Your task to perform on an android device: clear all cookies in the chrome app Image 0: 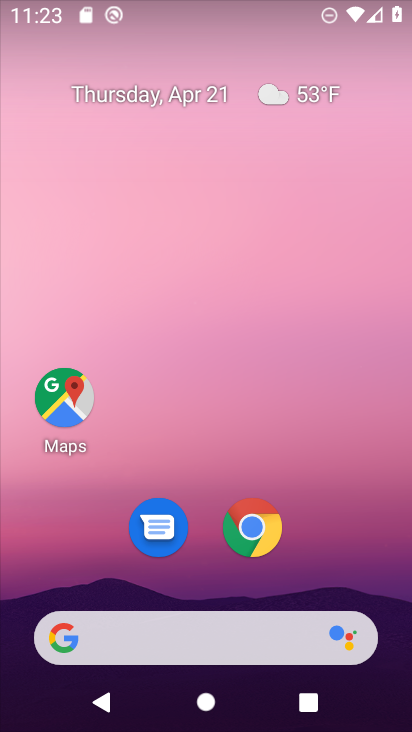
Step 0: drag from (373, 561) to (348, 141)
Your task to perform on an android device: clear all cookies in the chrome app Image 1: 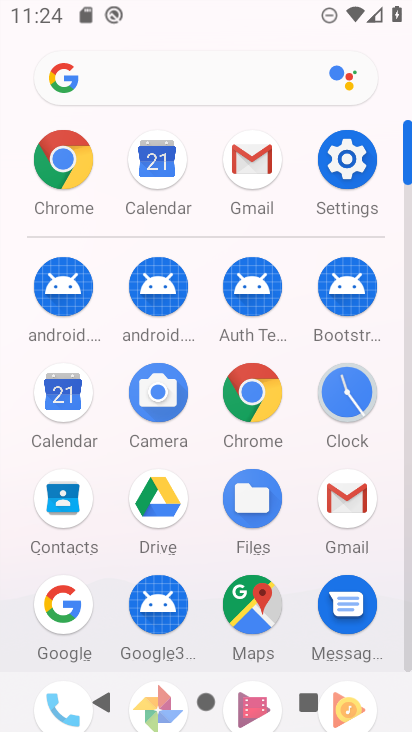
Step 1: click (253, 389)
Your task to perform on an android device: clear all cookies in the chrome app Image 2: 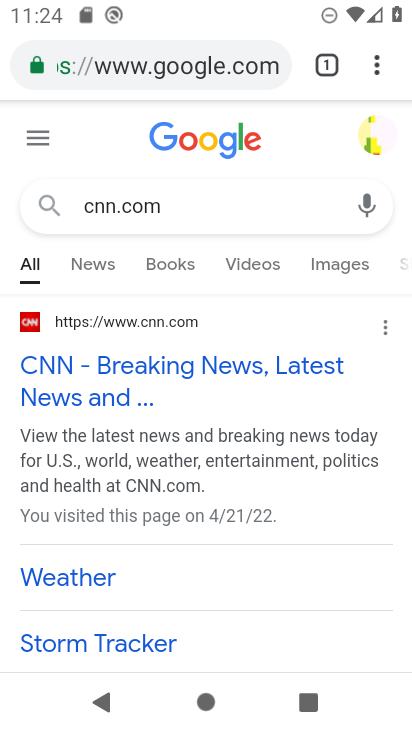
Step 2: click (376, 60)
Your task to perform on an android device: clear all cookies in the chrome app Image 3: 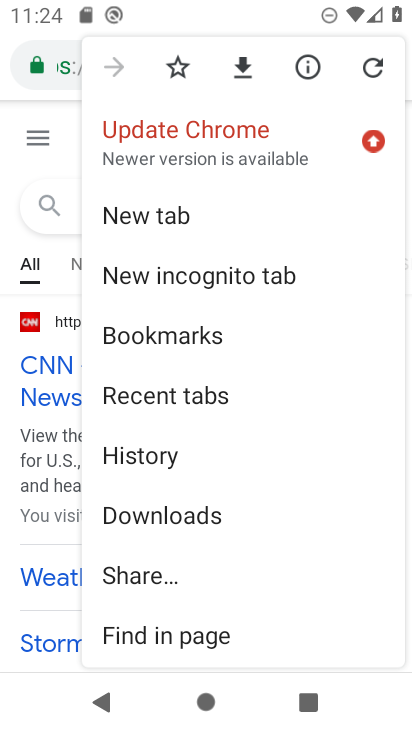
Step 3: drag from (281, 578) to (282, 415)
Your task to perform on an android device: clear all cookies in the chrome app Image 4: 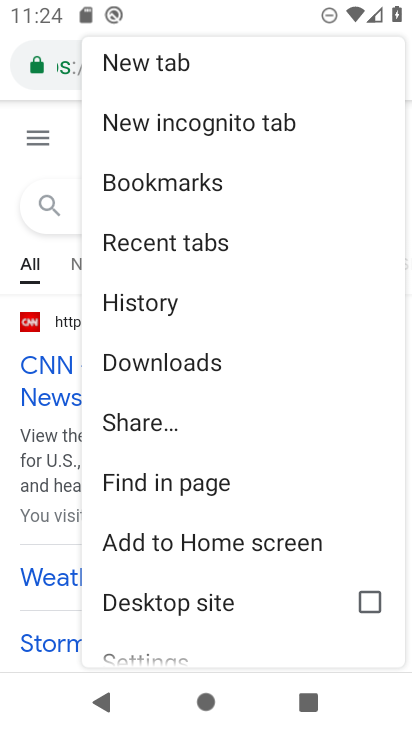
Step 4: drag from (306, 602) to (315, 410)
Your task to perform on an android device: clear all cookies in the chrome app Image 5: 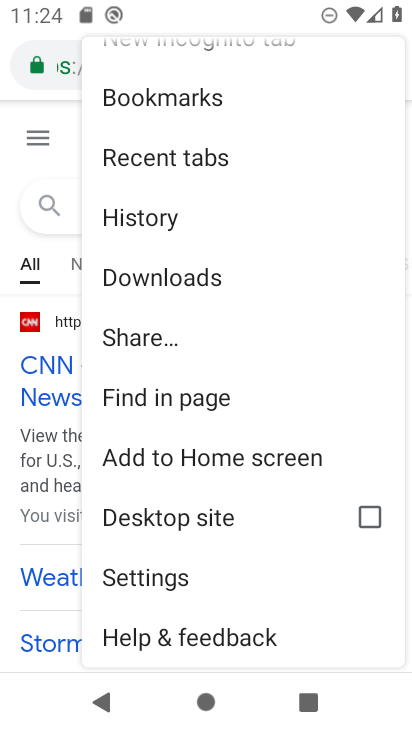
Step 5: click (166, 579)
Your task to perform on an android device: clear all cookies in the chrome app Image 6: 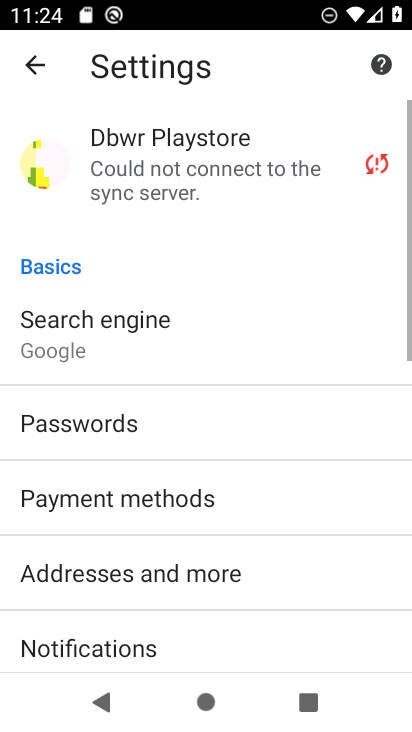
Step 6: drag from (283, 604) to (299, 481)
Your task to perform on an android device: clear all cookies in the chrome app Image 7: 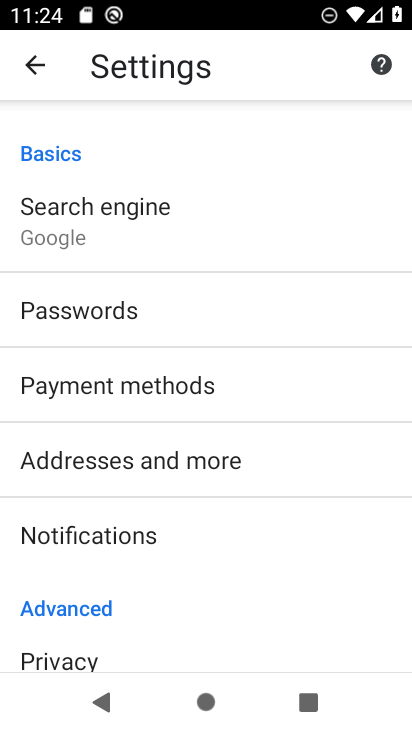
Step 7: drag from (303, 596) to (304, 474)
Your task to perform on an android device: clear all cookies in the chrome app Image 8: 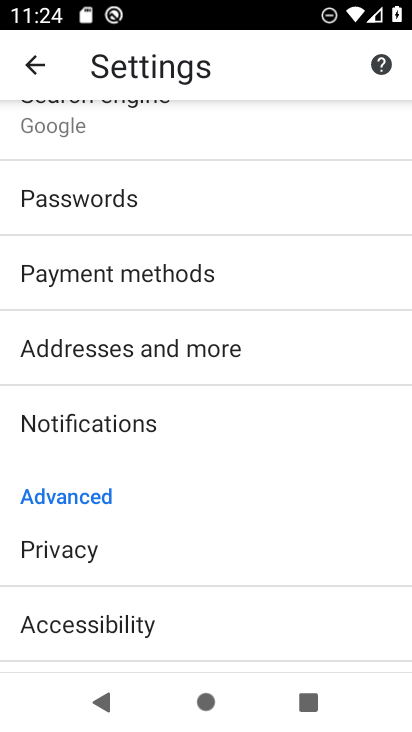
Step 8: drag from (301, 604) to (303, 487)
Your task to perform on an android device: clear all cookies in the chrome app Image 9: 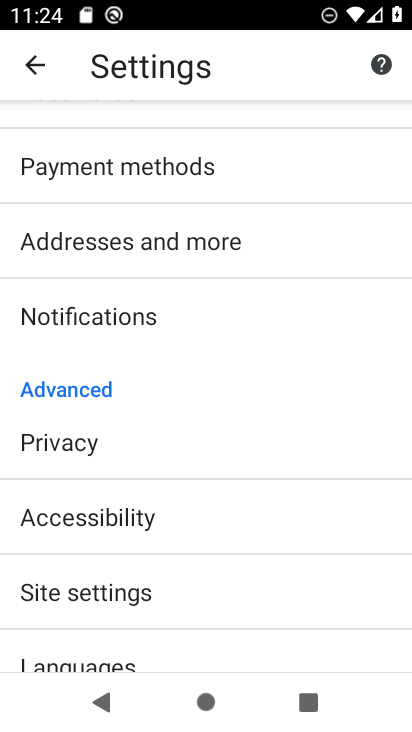
Step 9: drag from (293, 587) to (294, 487)
Your task to perform on an android device: clear all cookies in the chrome app Image 10: 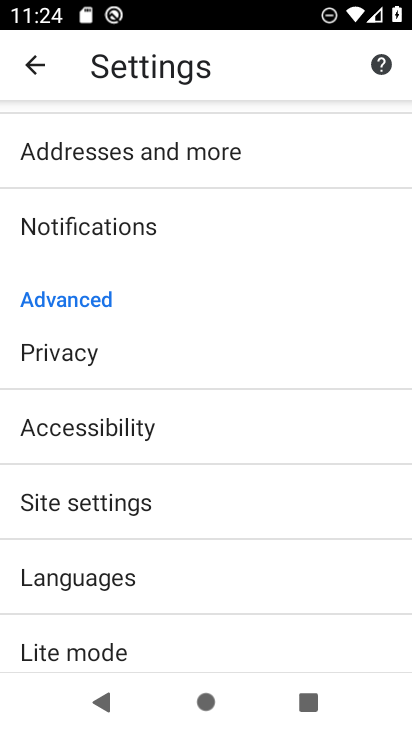
Step 10: drag from (286, 579) to (297, 468)
Your task to perform on an android device: clear all cookies in the chrome app Image 11: 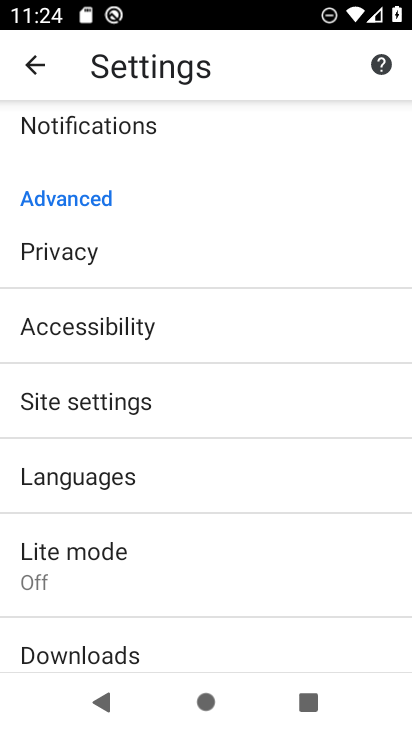
Step 11: drag from (296, 639) to (297, 466)
Your task to perform on an android device: clear all cookies in the chrome app Image 12: 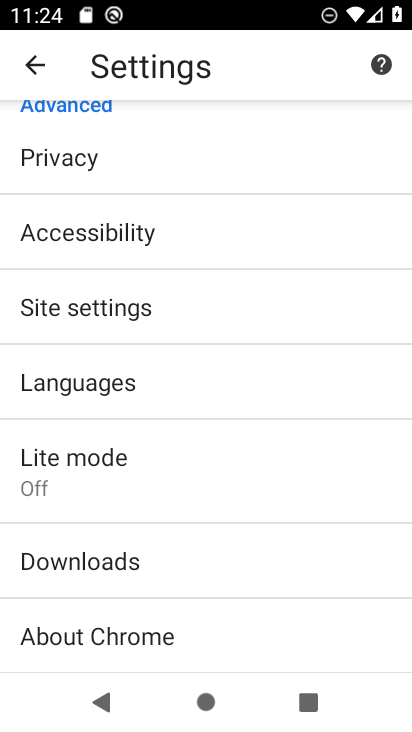
Step 12: drag from (280, 609) to (282, 455)
Your task to perform on an android device: clear all cookies in the chrome app Image 13: 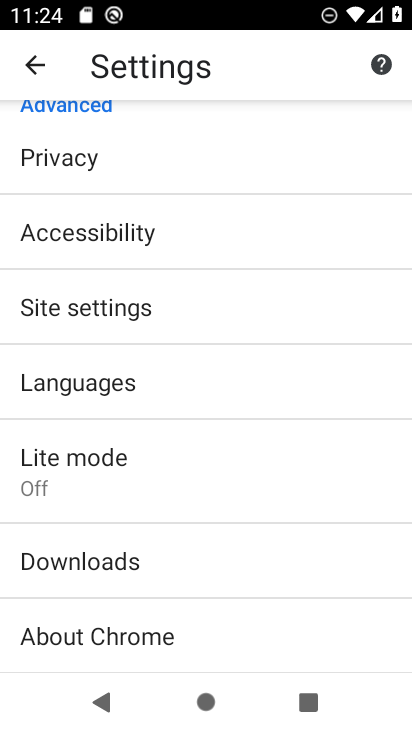
Step 13: drag from (294, 289) to (292, 458)
Your task to perform on an android device: clear all cookies in the chrome app Image 14: 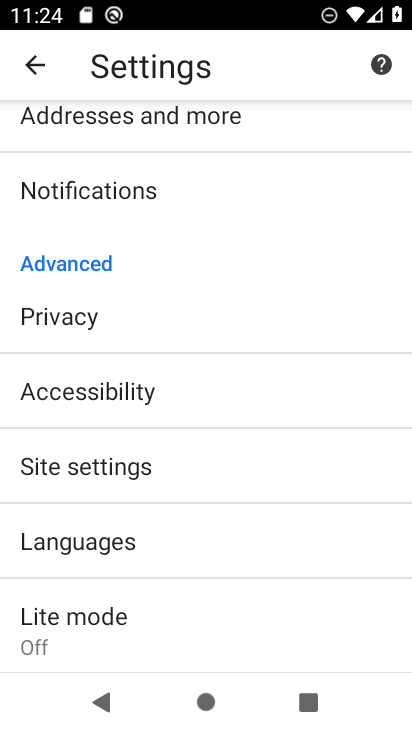
Step 14: drag from (277, 321) to (256, 523)
Your task to perform on an android device: clear all cookies in the chrome app Image 15: 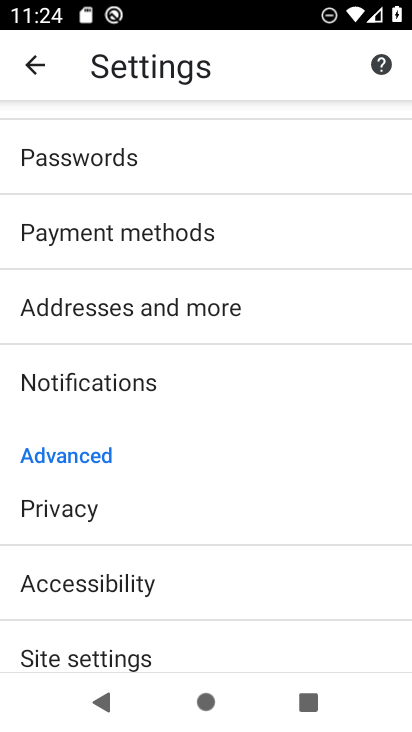
Step 15: click (81, 521)
Your task to perform on an android device: clear all cookies in the chrome app Image 16: 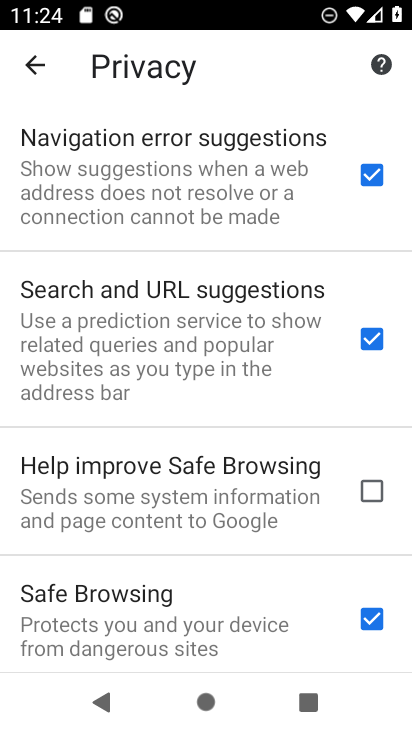
Step 16: drag from (282, 592) to (301, 445)
Your task to perform on an android device: clear all cookies in the chrome app Image 17: 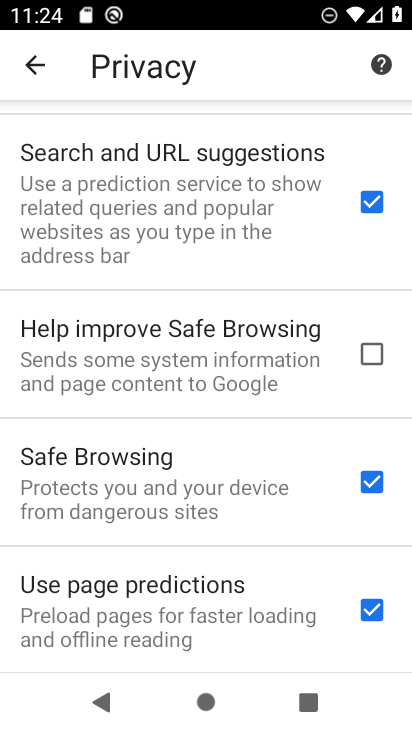
Step 17: drag from (291, 570) to (291, 434)
Your task to perform on an android device: clear all cookies in the chrome app Image 18: 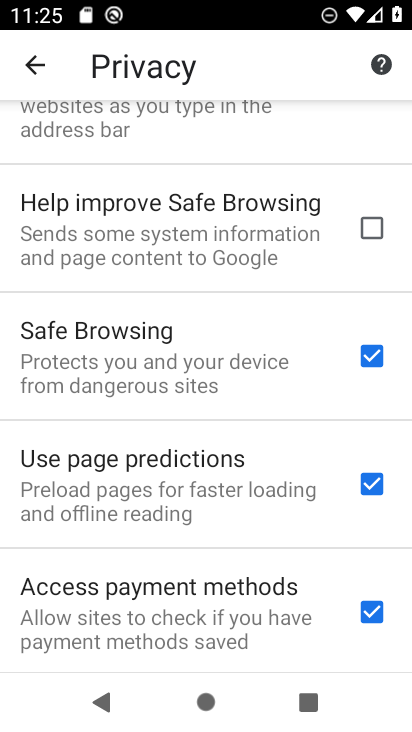
Step 18: drag from (305, 625) to (302, 456)
Your task to perform on an android device: clear all cookies in the chrome app Image 19: 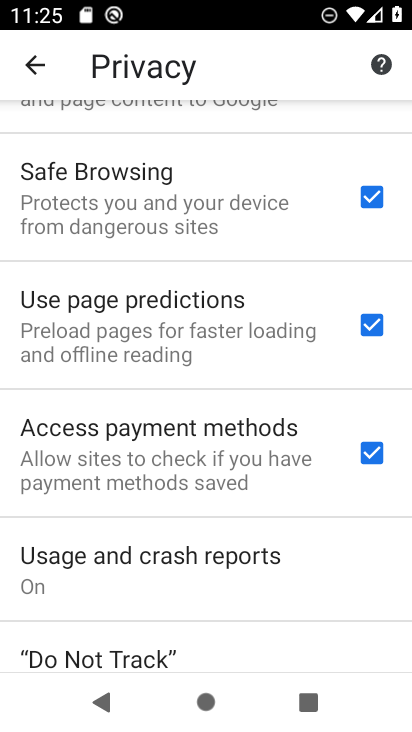
Step 19: drag from (301, 613) to (307, 475)
Your task to perform on an android device: clear all cookies in the chrome app Image 20: 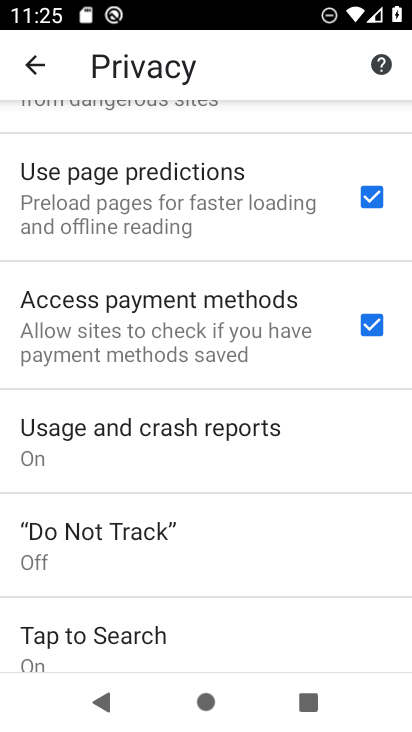
Step 20: drag from (283, 602) to (281, 441)
Your task to perform on an android device: clear all cookies in the chrome app Image 21: 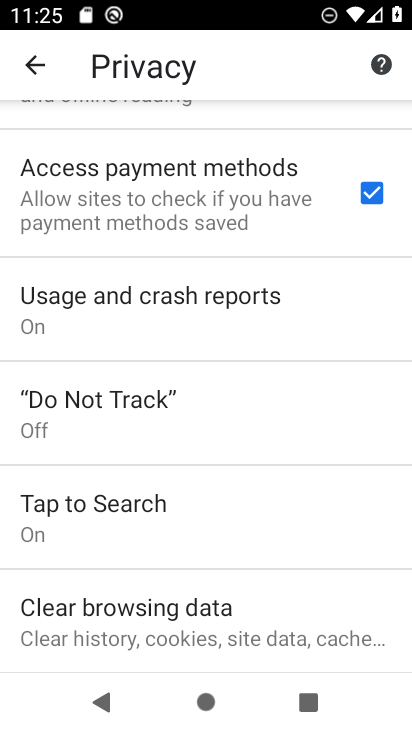
Step 21: click (194, 623)
Your task to perform on an android device: clear all cookies in the chrome app Image 22: 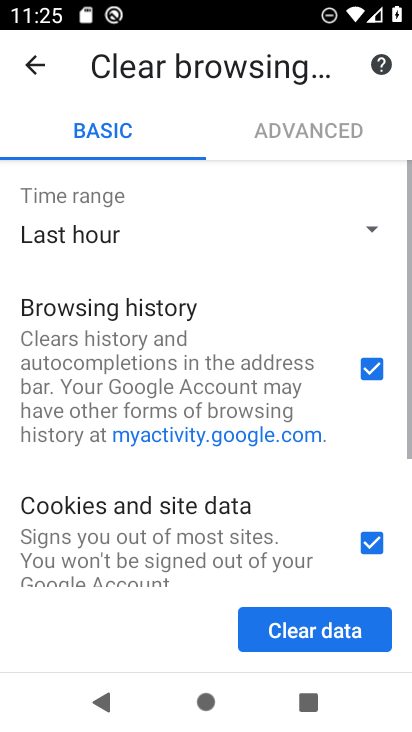
Step 22: click (299, 622)
Your task to perform on an android device: clear all cookies in the chrome app Image 23: 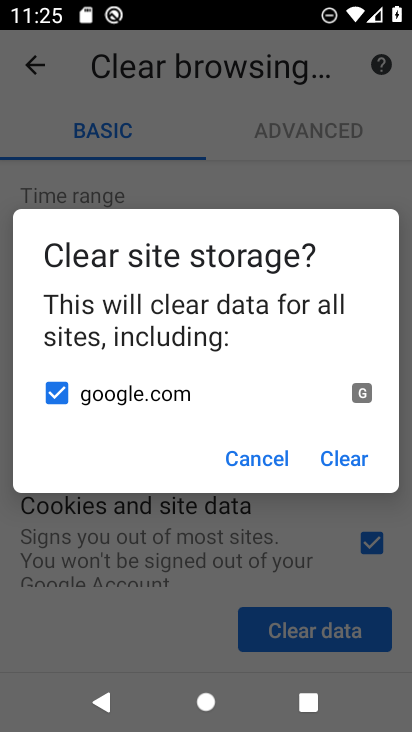
Step 23: click (339, 457)
Your task to perform on an android device: clear all cookies in the chrome app Image 24: 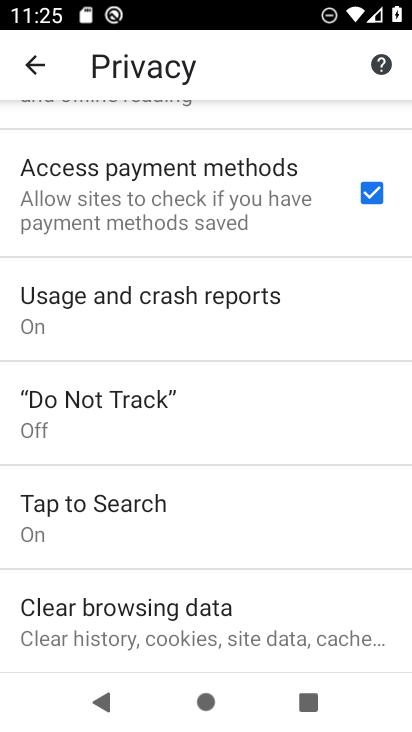
Step 24: task complete